Your task to perform on an android device: turn notification dots on Image 0: 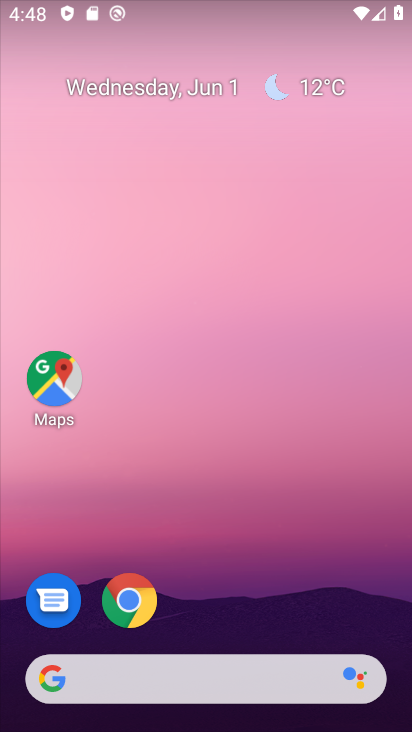
Step 0: drag from (294, 566) to (239, 84)
Your task to perform on an android device: turn notification dots on Image 1: 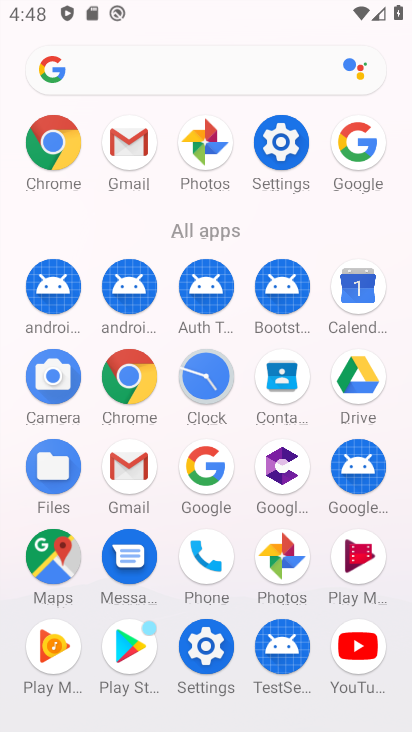
Step 1: click (282, 142)
Your task to perform on an android device: turn notification dots on Image 2: 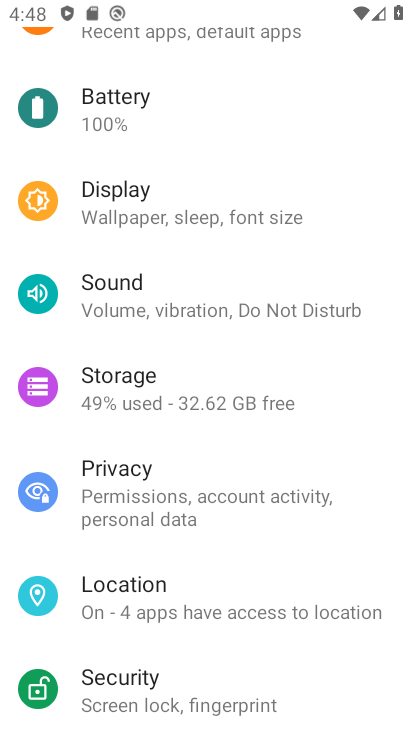
Step 2: drag from (182, 251) to (182, 339)
Your task to perform on an android device: turn notification dots on Image 3: 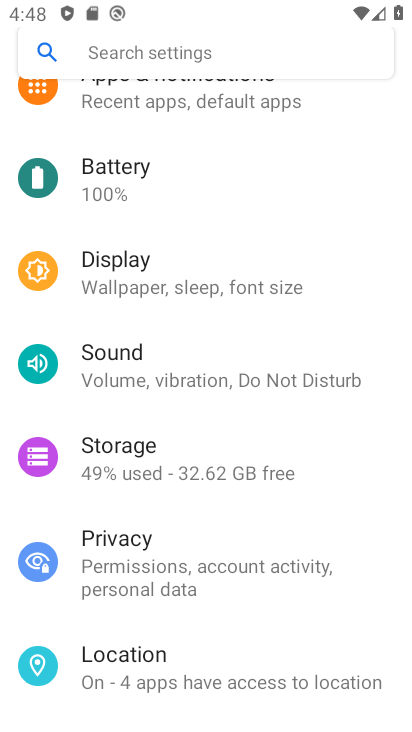
Step 3: drag from (183, 215) to (187, 319)
Your task to perform on an android device: turn notification dots on Image 4: 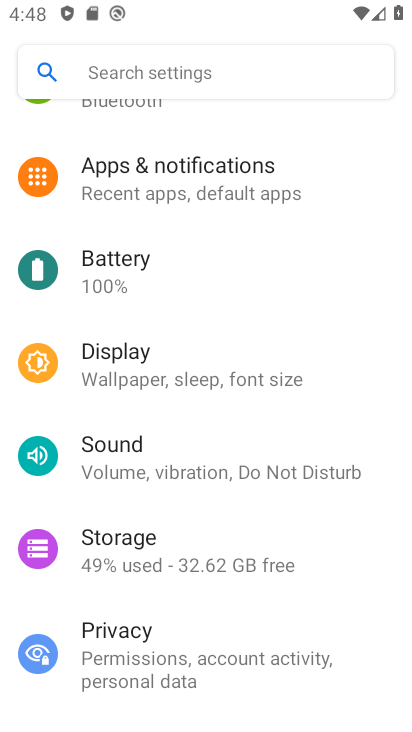
Step 4: click (157, 192)
Your task to perform on an android device: turn notification dots on Image 5: 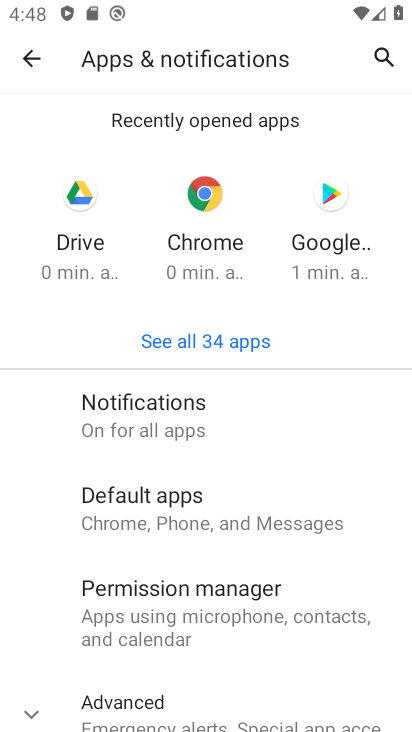
Step 5: click (176, 422)
Your task to perform on an android device: turn notification dots on Image 6: 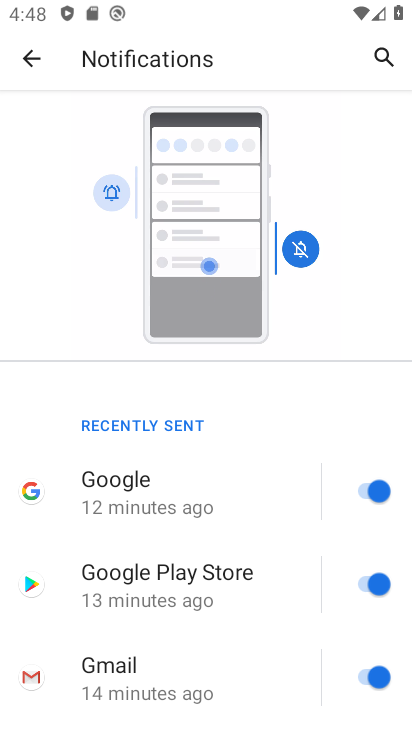
Step 6: drag from (221, 541) to (229, 389)
Your task to perform on an android device: turn notification dots on Image 7: 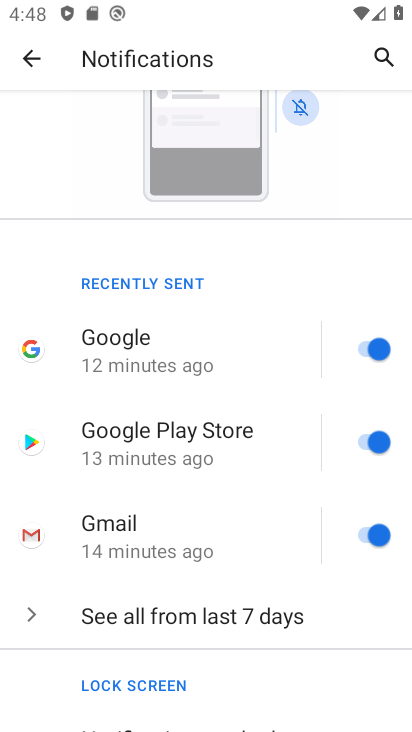
Step 7: drag from (205, 569) to (279, 456)
Your task to perform on an android device: turn notification dots on Image 8: 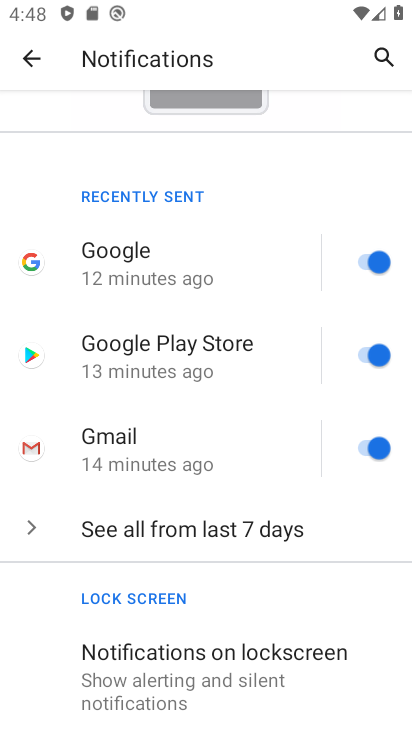
Step 8: drag from (229, 603) to (280, 464)
Your task to perform on an android device: turn notification dots on Image 9: 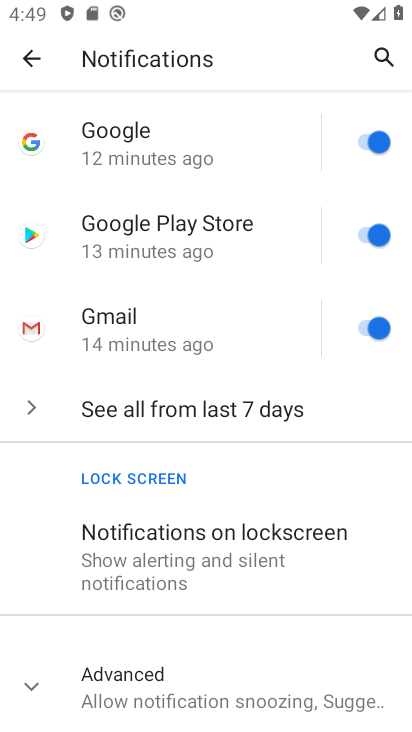
Step 9: click (238, 678)
Your task to perform on an android device: turn notification dots on Image 10: 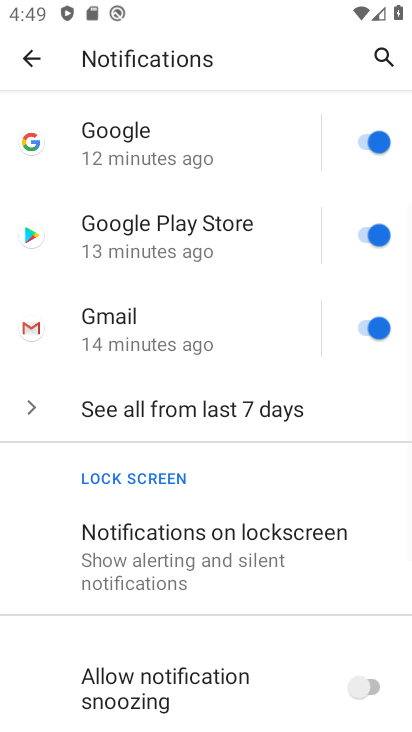
Step 10: task complete